Your task to perform on an android device: Empty the shopping cart on target. Image 0: 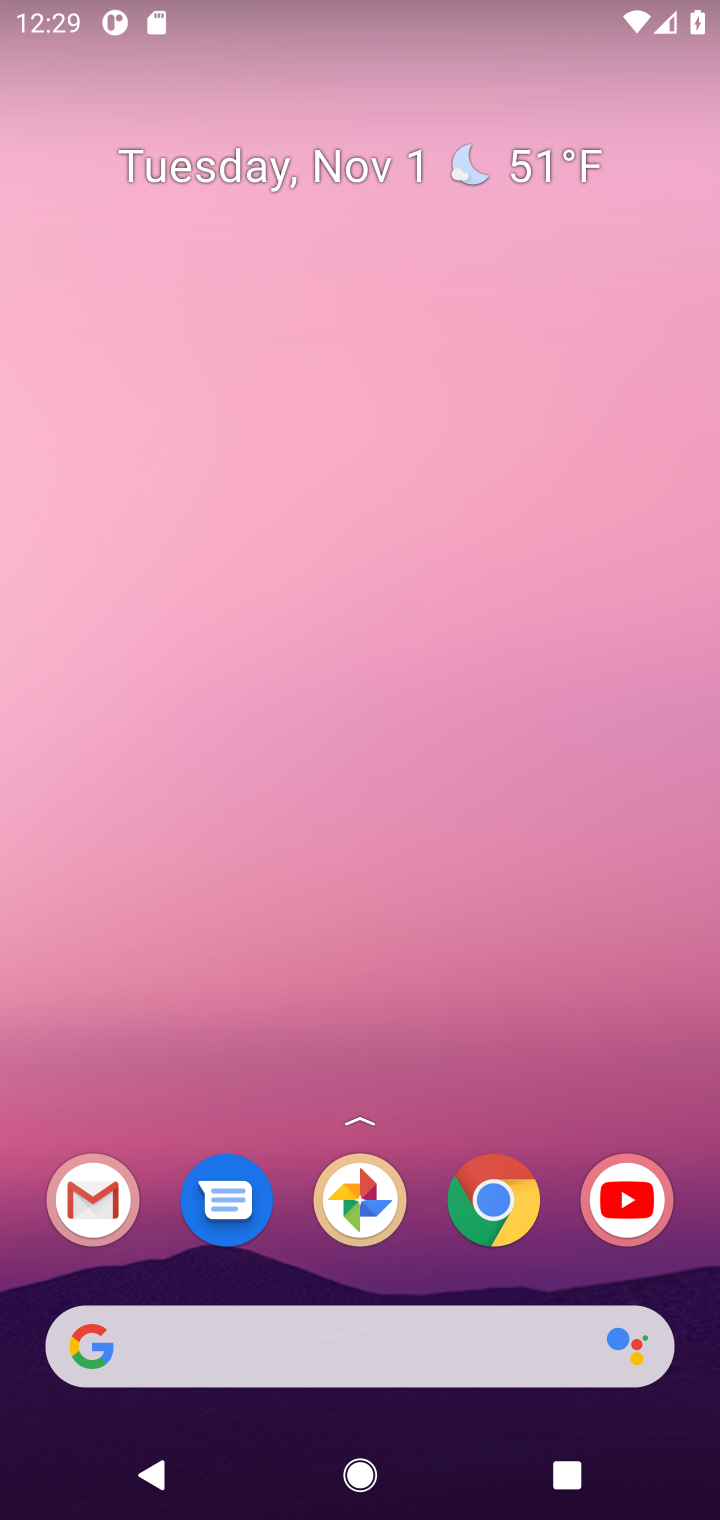
Step 0: click (496, 1232)
Your task to perform on an android device: Empty the shopping cart on target. Image 1: 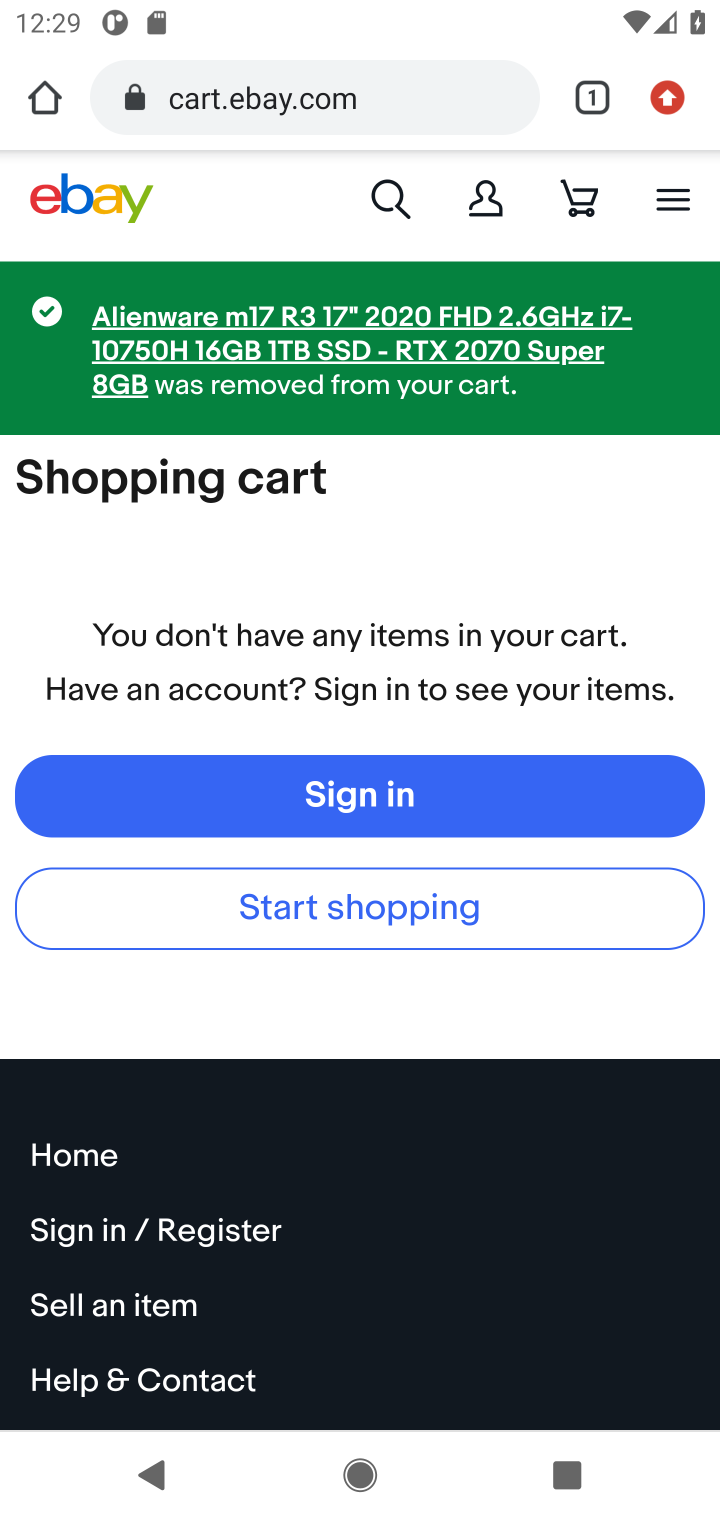
Step 1: click (308, 88)
Your task to perform on an android device: Empty the shopping cart on target. Image 2: 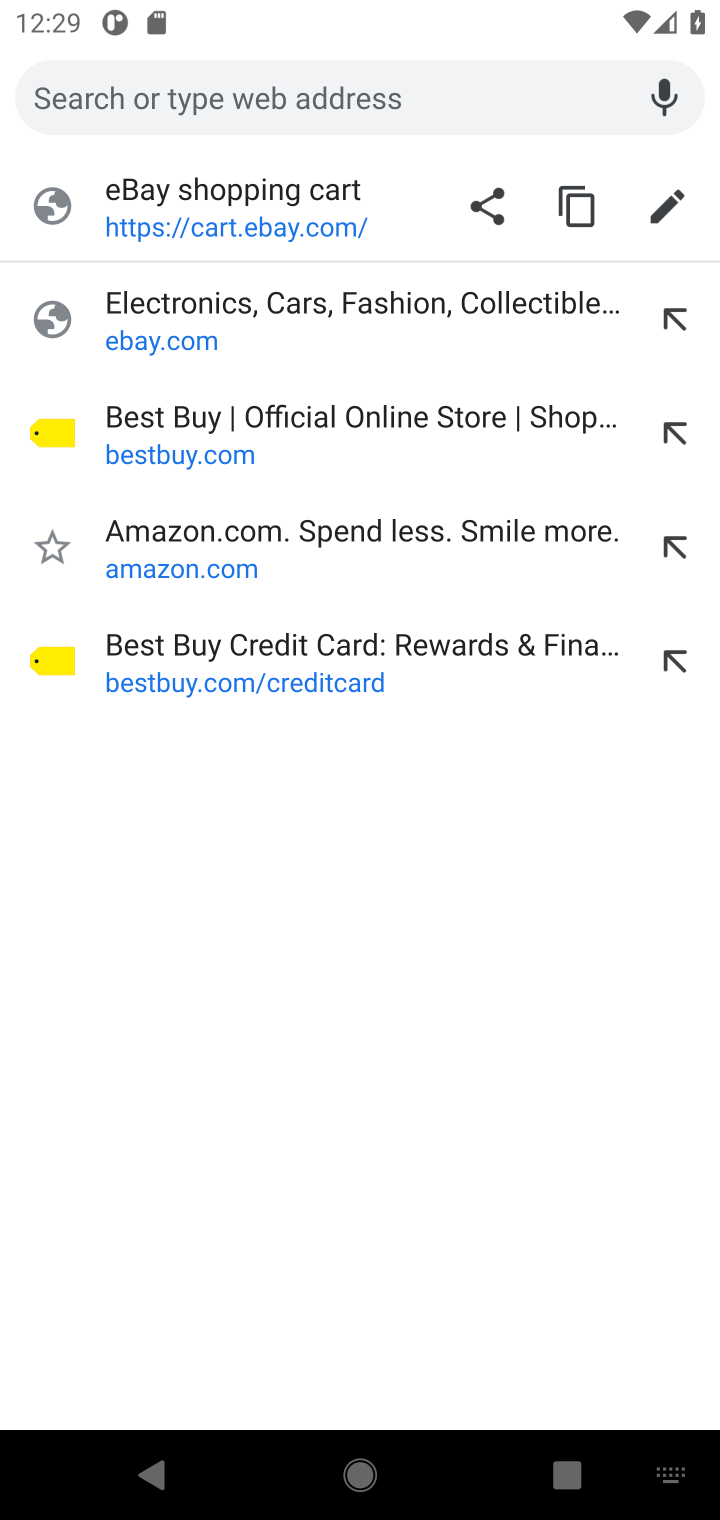
Step 2: type "target.com"
Your task to perform on an android device: Empty the shopping cart on target. Image 3: 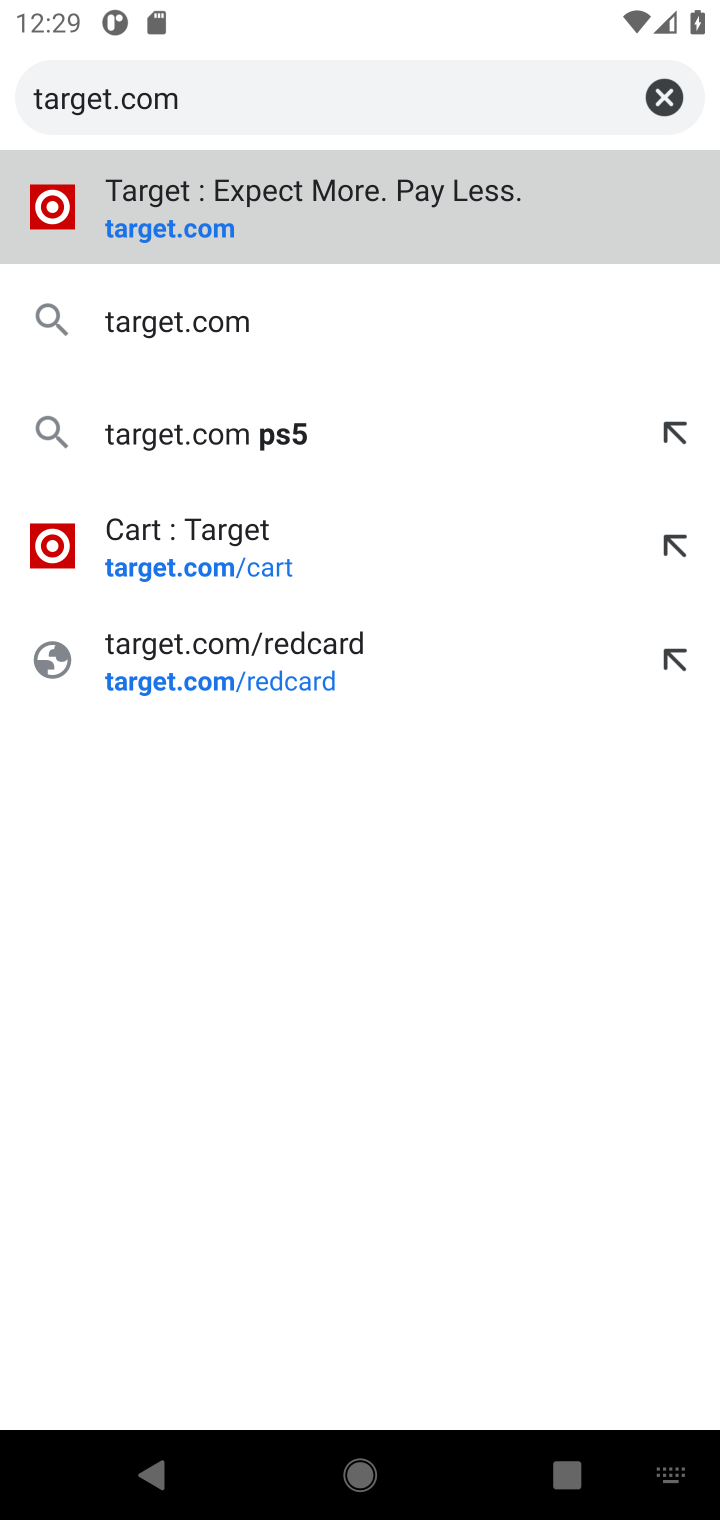
Step 3: click (169, 244)
Your task to perform on an android device: Empty the shopping cart on target. Image 4: 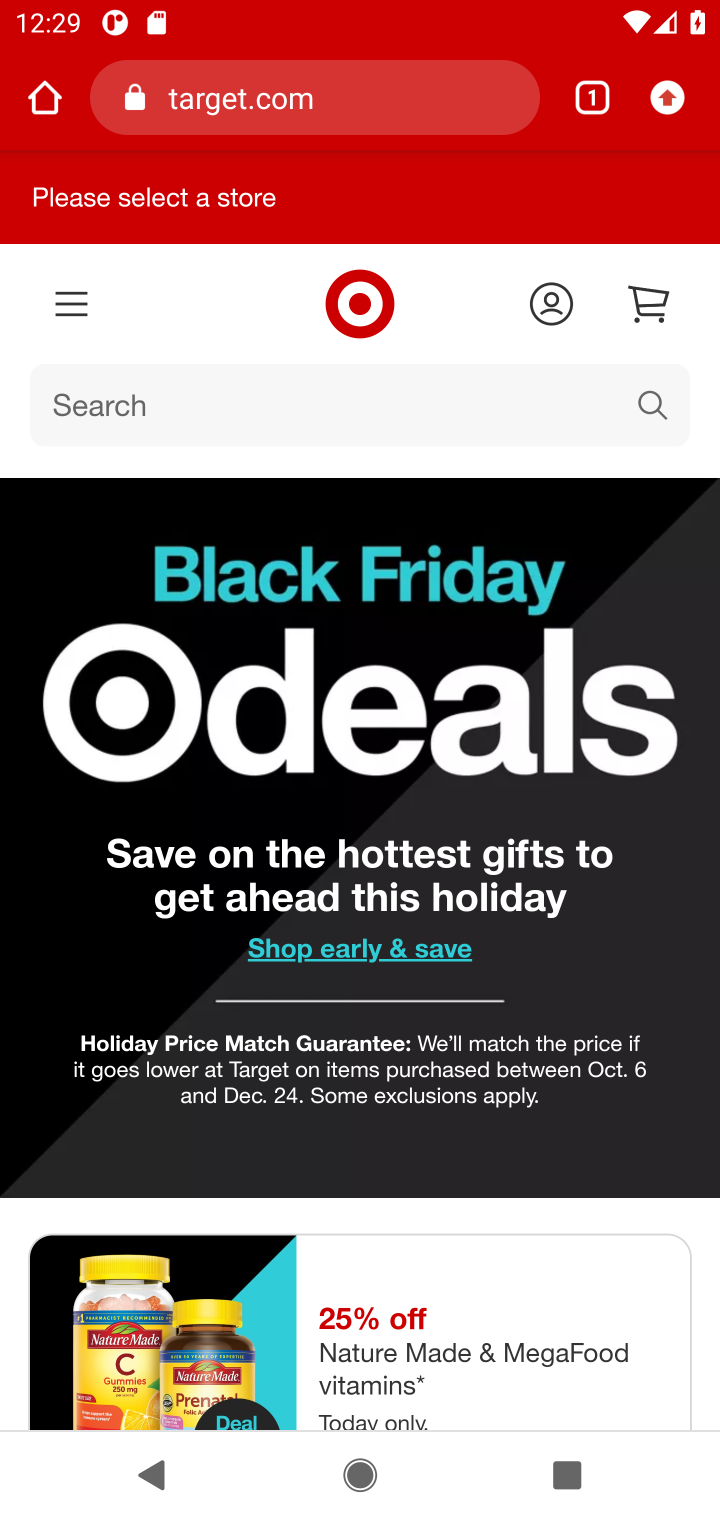
Step 4: click (645, 316)
Your task to perform on an android device: Empty the shopping cart on target. Image 5: 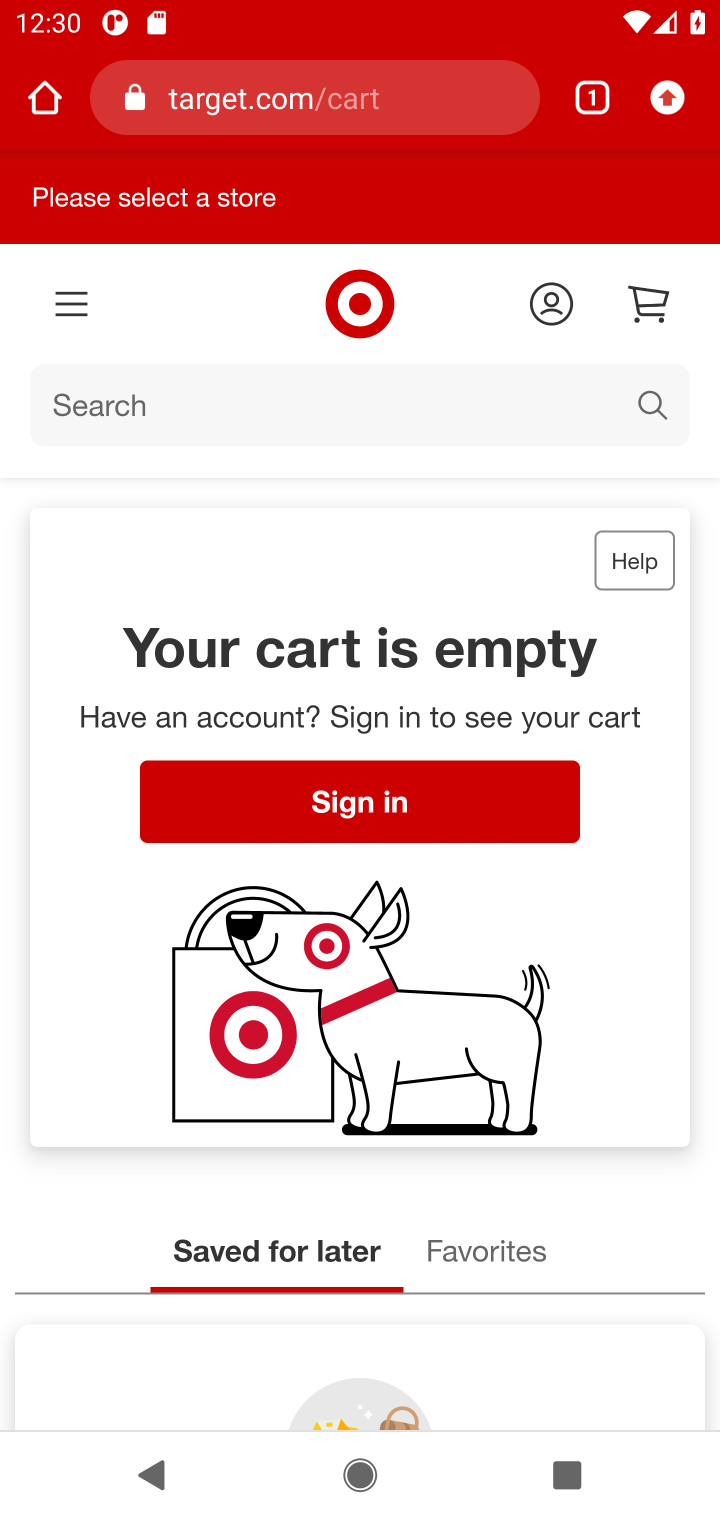
Step 5: task complete